Your task to perform on an android device: open app "Yahoo Mail" (install if not already installed) and go to login screen Image 0: 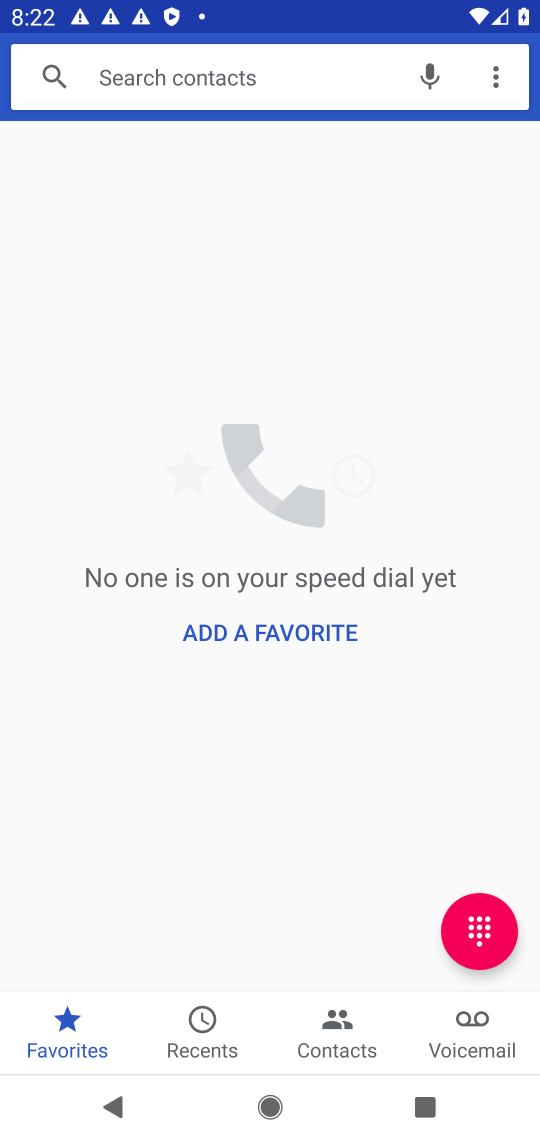
Step 0: press home button
Your task to perform on an android device: open app "Yahoo Mail" (install if not already installed) and go to login screen Image 1: 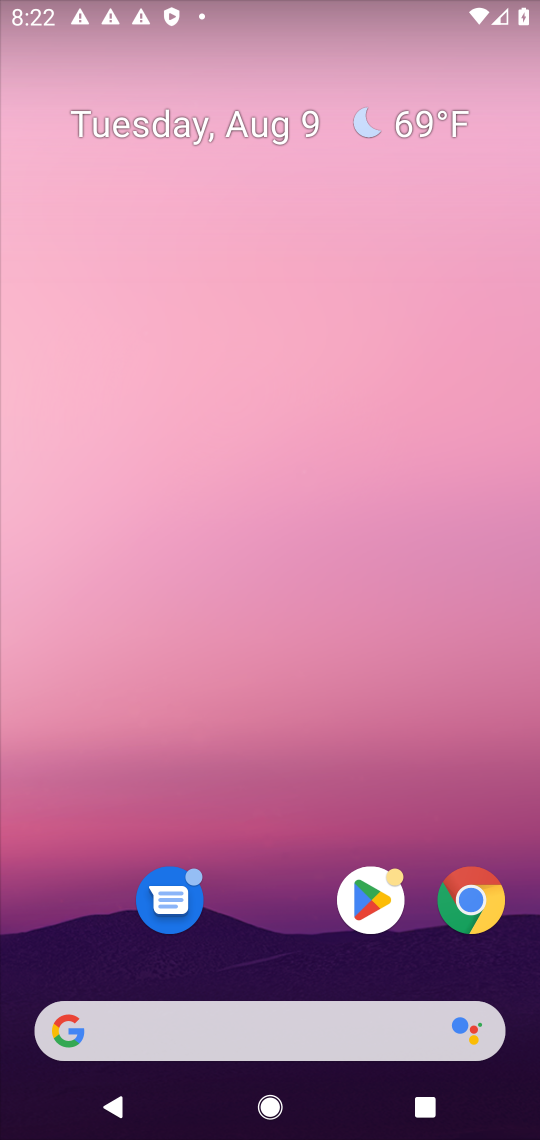
Step 1: click (373, 910)
Your task to perform on an android device: open app "Yahoo Mail" (install if not already installed) and go to login screen Image 2: 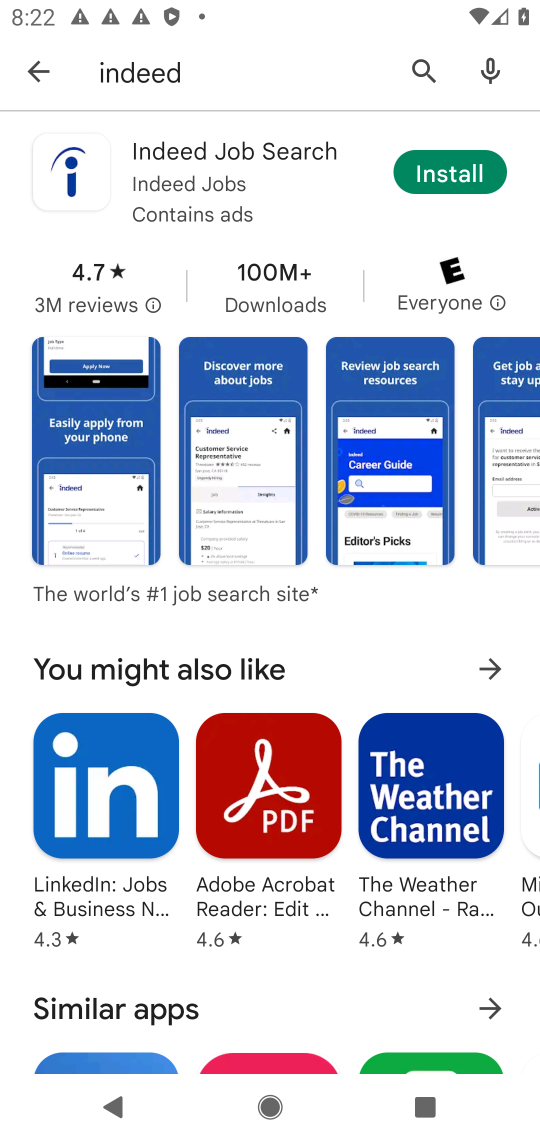
Step 2: click (417, 74)
Your task to perform on an android device: open app "Yahoo Mail" (install if not already installed) and go to login screen Image 3: 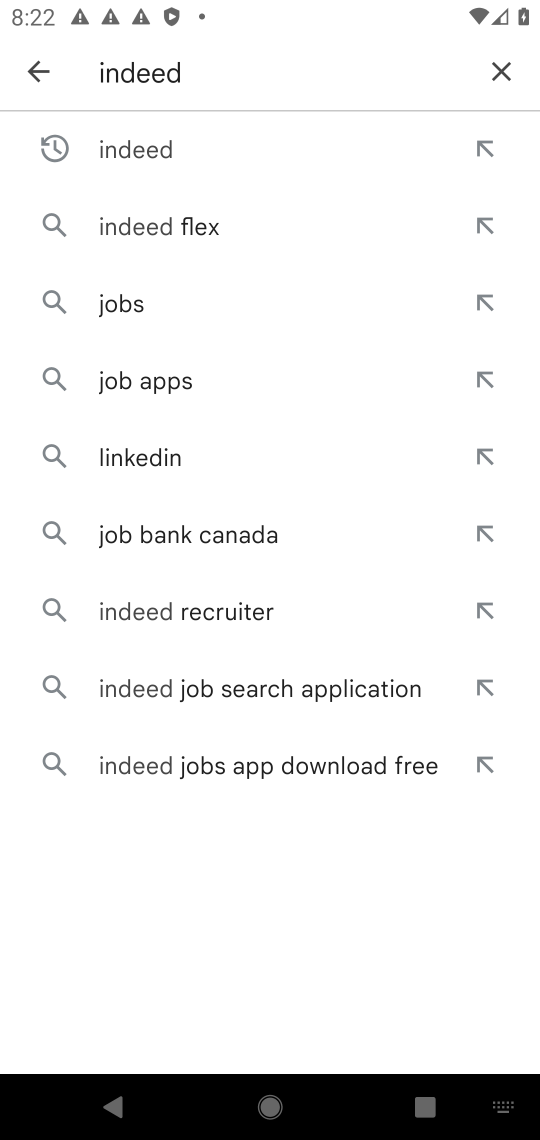
Step 3: click (502, 78)
Your task to perform on an android device: open app "Yahoo Mail" (install if not already installed) and go to login screen Image 4: 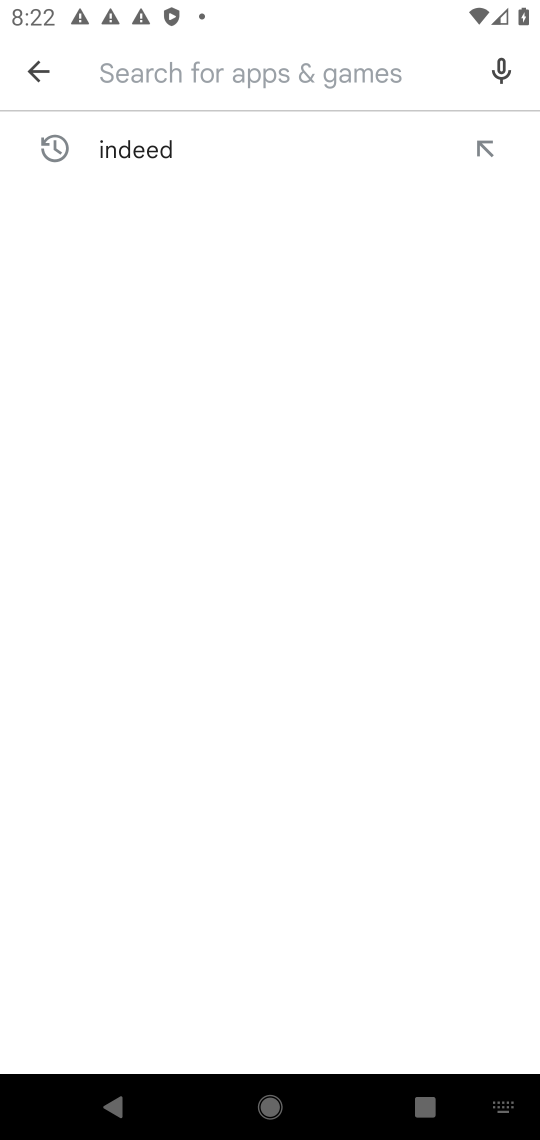
Step 4: type "yahoo"
Your task to perform on an android device: open app "Yahoo Mail" (install if not already installed) and go to login screen Image 5: 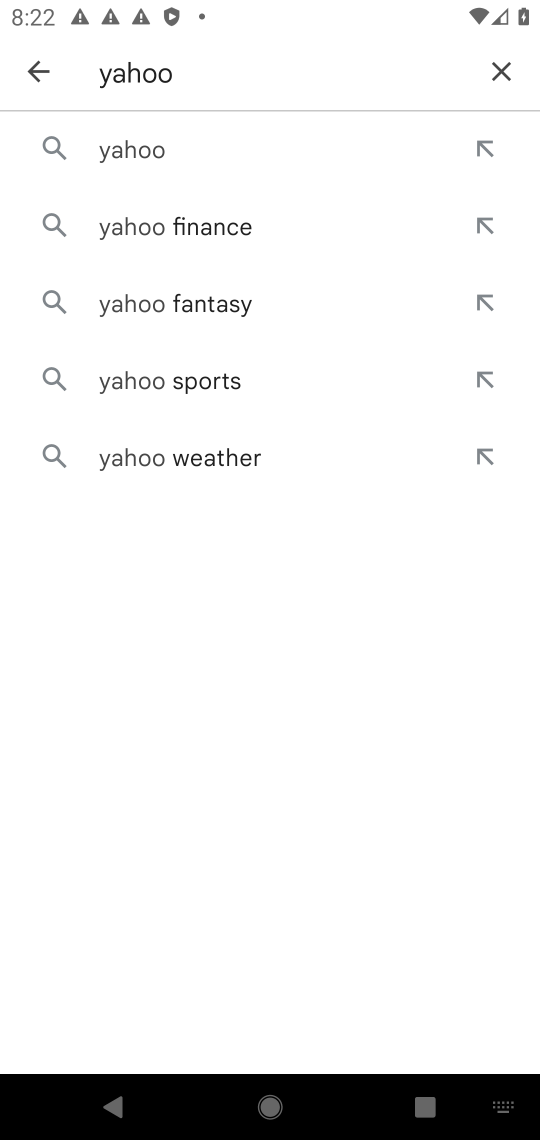
Step 5: click (185, 160)
Your task to perform on an android device: open app "Yahoo Mail" (install if not already installed) and go to login screen Image 6: 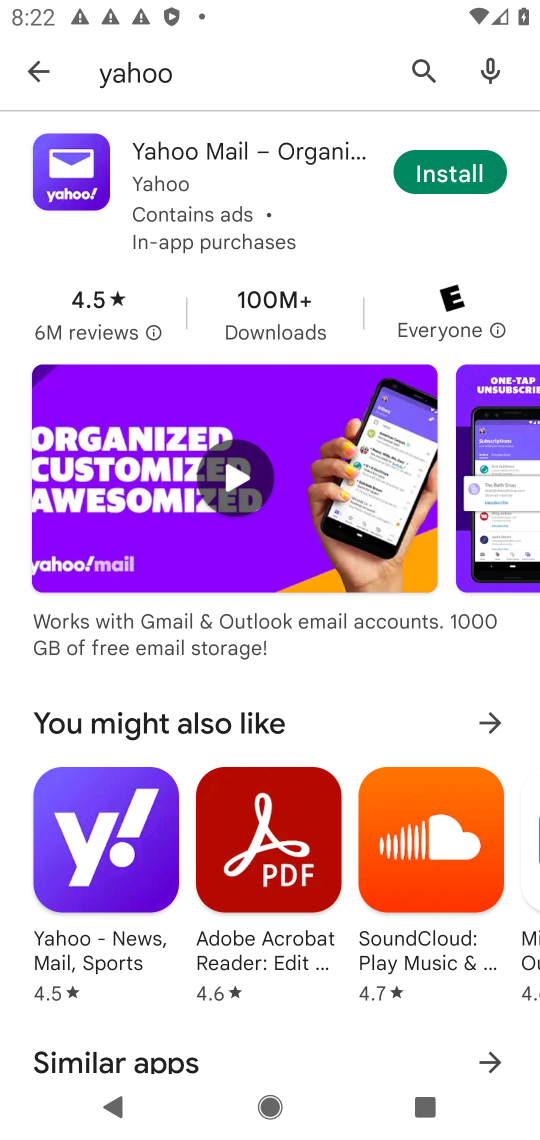
Step 6: click (434, 178)
Your task to perform on an android device: open app "Yahoo Mail" (install if not already installed) and go to login screen Image 7: 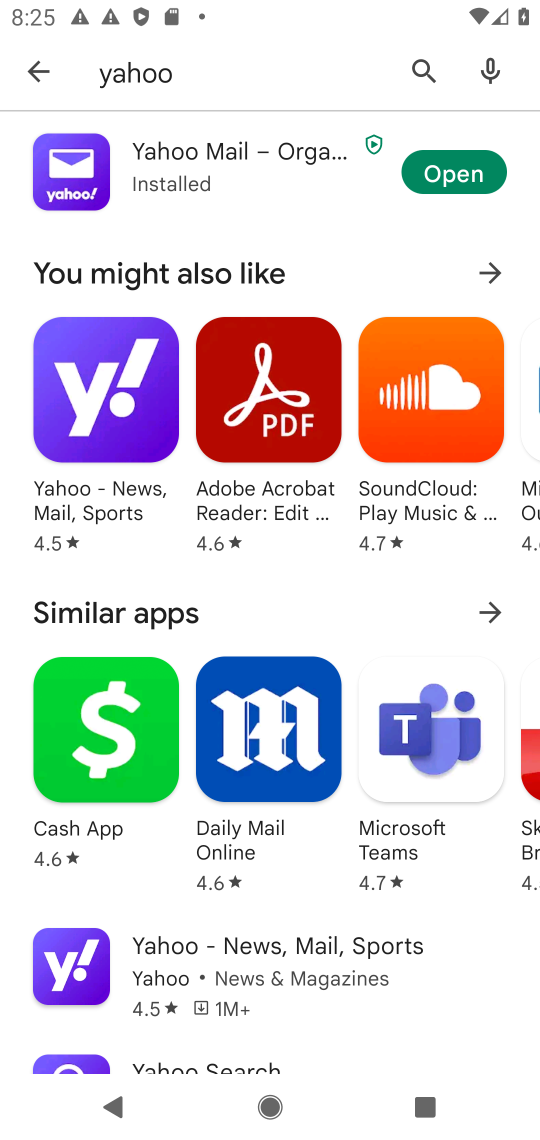
Step 7: click (453, 174)
Your task to perform on an android device: open app "Yahoo Mail" (install if not already installed) and go to login screen Image 8: 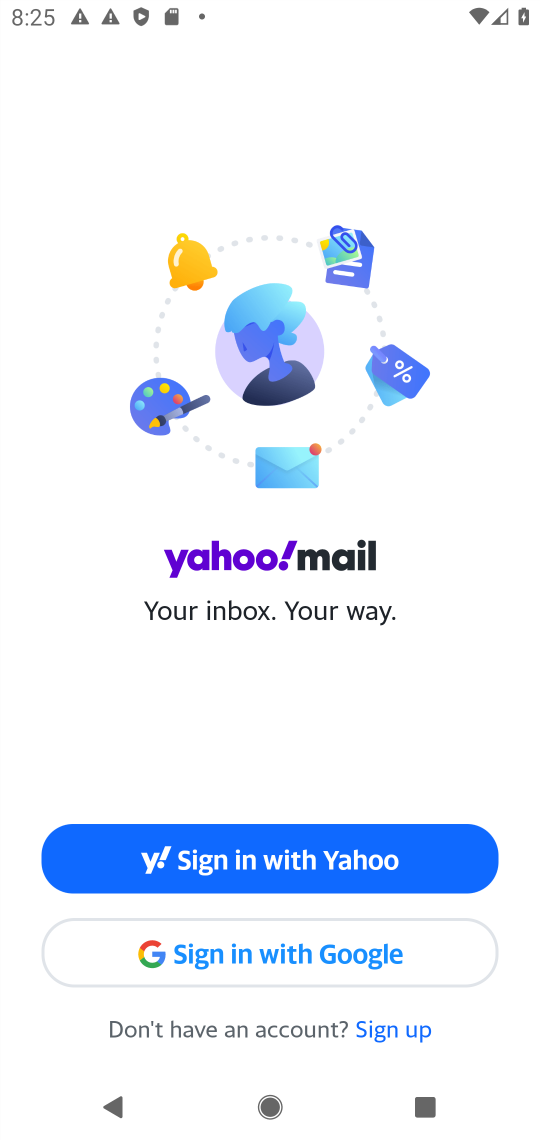
Step 8: task complete